Your task to perform on an android device: open app "Adobe Acrobat Reader" Image 0: 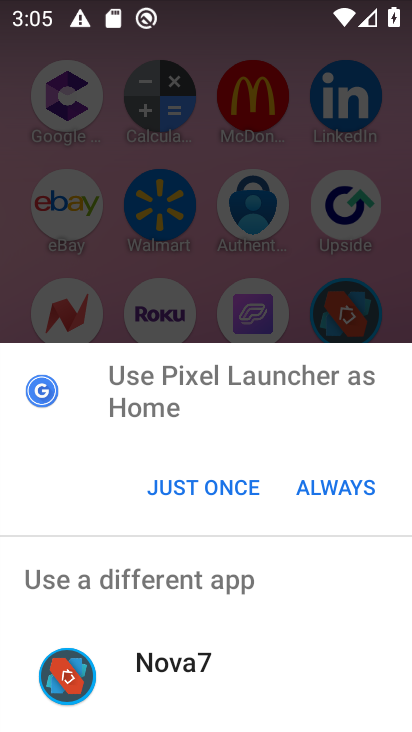
Step 0: click (224, 490)
Your task to perform on an android device: open app "Adobe Acrobat Reader" Image 1: 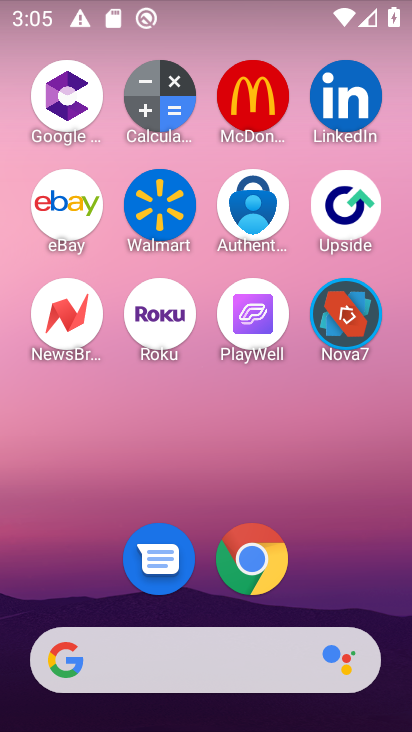
Step 1: press home button
Your task to perform on an android device: open app "Adobe Acrobat Reader" Image 2: 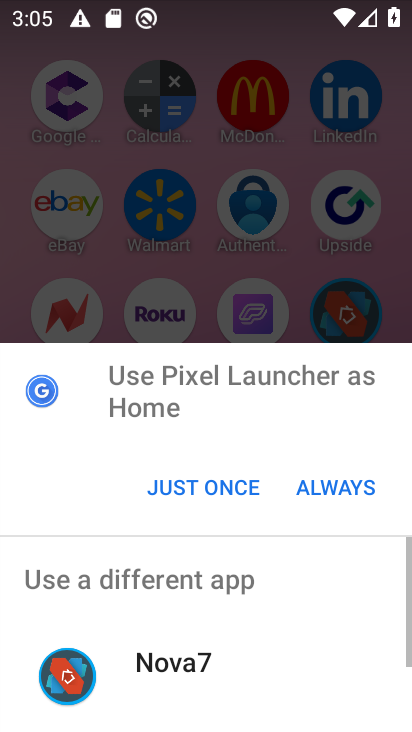
Step 2: drag from (188, 648) to (231, 218)
Your task to perform on an android device: open app "Adobe Acrobat Reader" Image 3: 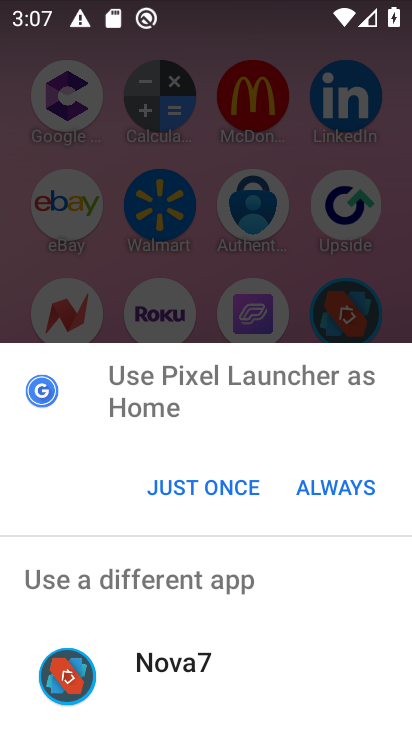
Step 3: click (244, 471)
Your task to perform on an android device: open app "Adobe Acrobat Reader" Image 4: 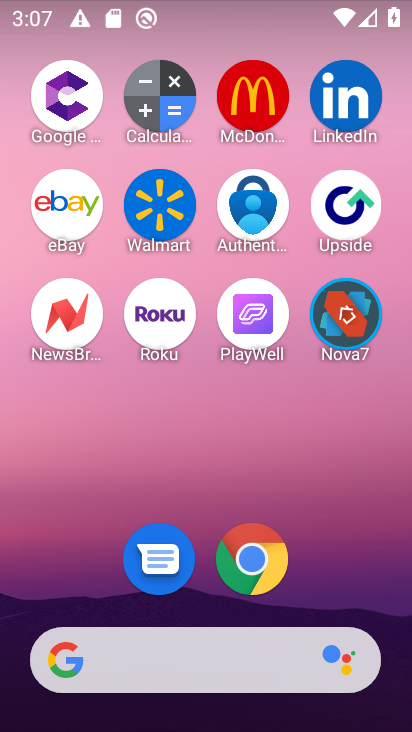
Step 4: drag from (228, 561) to (229, 174)
Your task to perform on an android device: open app "Adobe Acrobat Reader" Image 5: 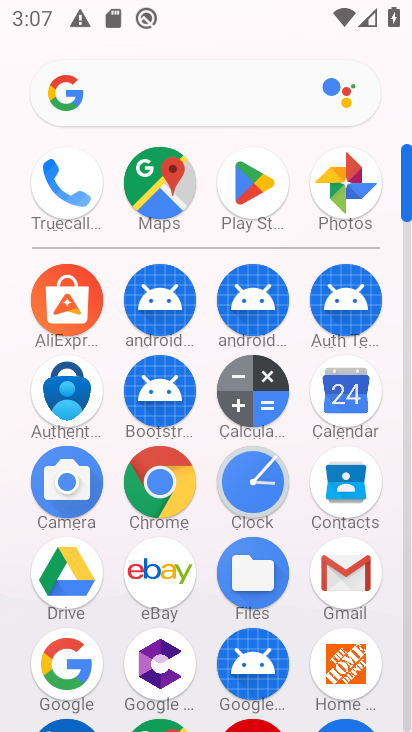
Step 5: click (251, 193)
Your task to perform on an android device: open app "Adobe Acrobat Reader" Image 6: 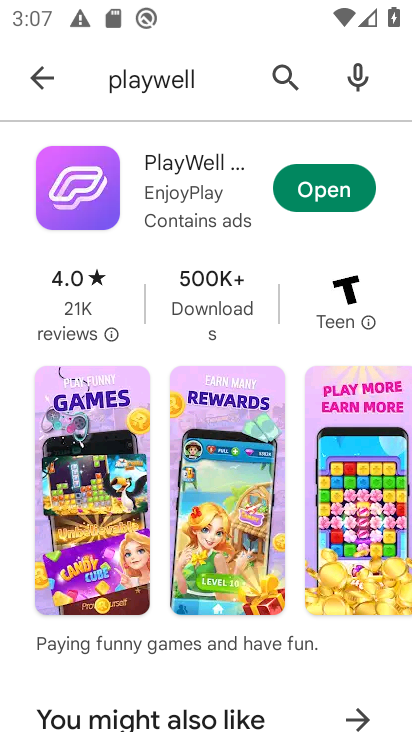
Step 6: click (277, 85)
Your task to perform on an android device: open app "Adobe Acrobat Reader" Image 7: 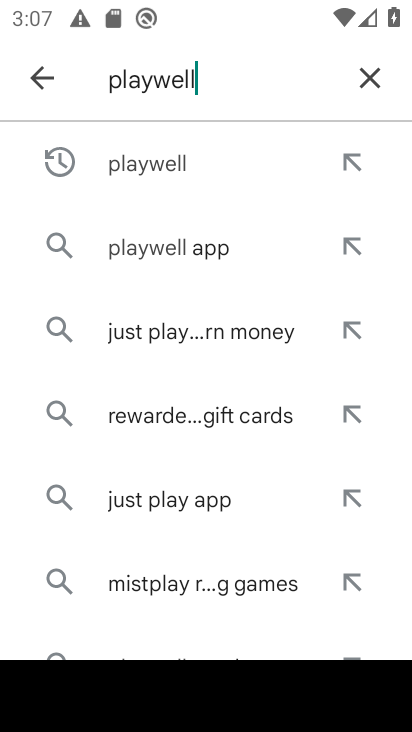
Step 7: click (374, 82)
Your task to perform on an android device: open app "Adobe Acrobat Reader" Image 8: 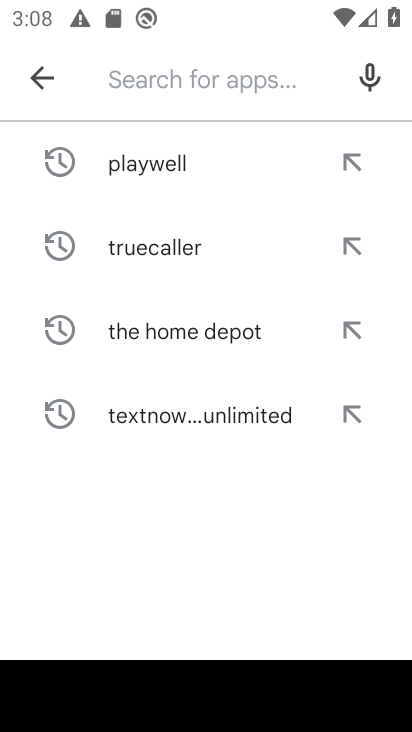
Step 8: type "Adobe Acrobat Reader"
Your task to perform on an android device: open app "Adobe Acrobat Reader" Image 9: 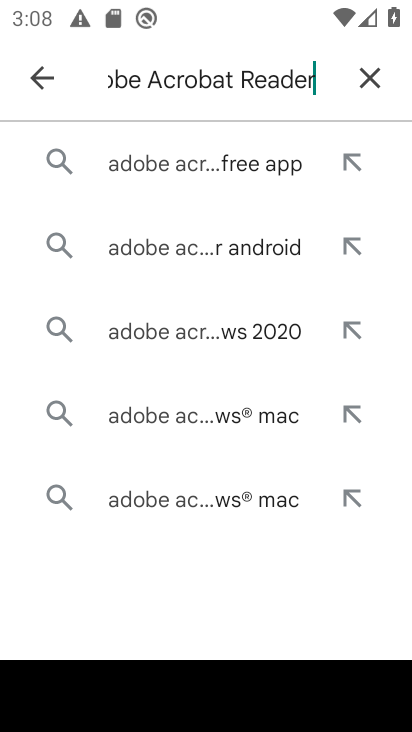
Step 9: click (203, 156)
Your task to perform on an android device: open app "Adobe Acrobat Reader" Image 10: 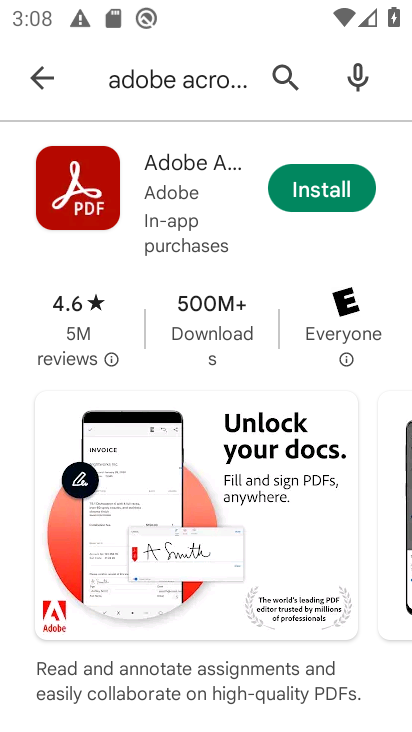
Step 10: click (361, 179)
Your task to perform on an android device: open app "Adobe Acrobat Reader" Image 11: 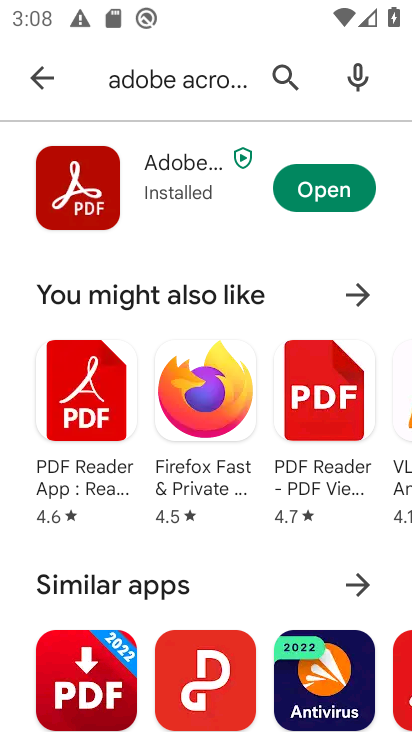
Step 11: click (311, 191)
Your task to perform on an android device: open app "Adobe Acrobat Reader" Image 12: 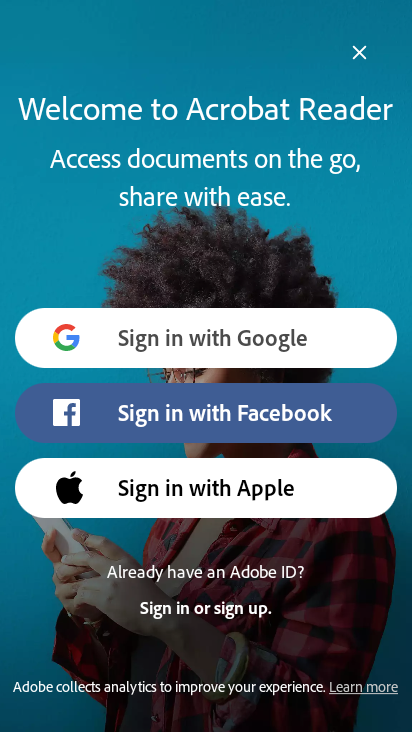
Step 12: task complete